Your task to perform on an android device: Search for hotels in Las Vegas Image 0: 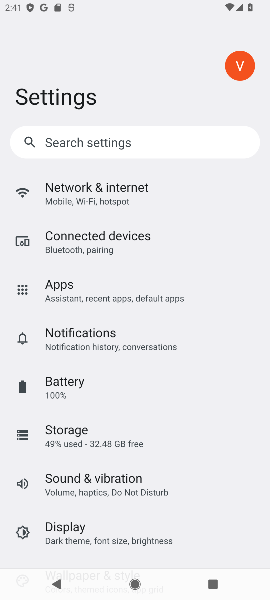
Step 0: press home button
Your task to perform on an android device: Search for hotels in Las Vegas Image 1: 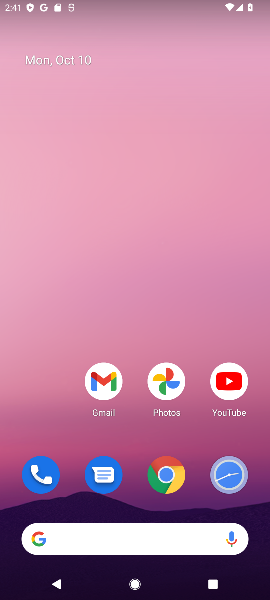
Step 1: drag from (107, 465) to (157, 179)
Your task to perform on an android device: Search for hotels in Las Vegas Image 2: 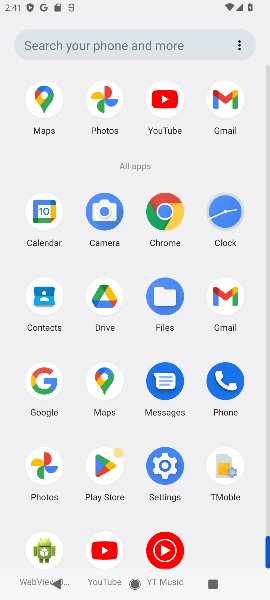
Step 2: click (43, 399)
Your task to perform on an android device: Search for hotels in Las Vegas Image 3: 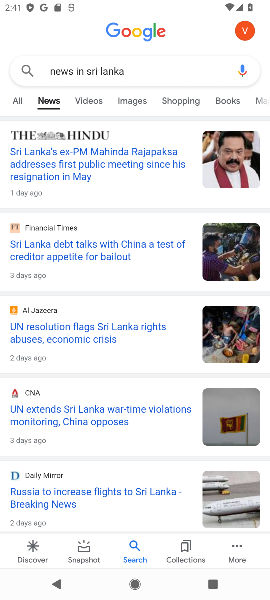
Step 3: click (195, 70)
Your task to perform on an android device: Search for hotels in Las Vegas Image 4: 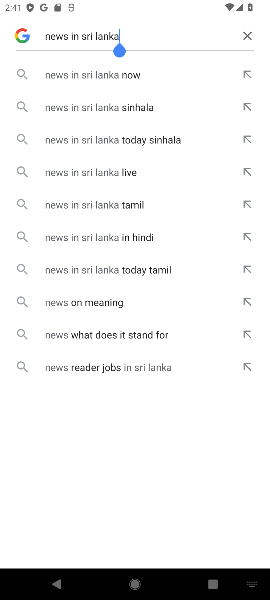
Step 4: click (251, 36)
Your task to perform on an android device: Search for hotels in Las Vegas Image 5: 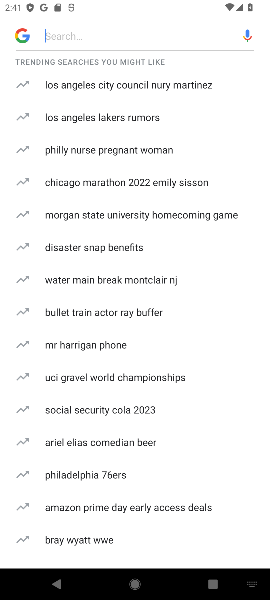
Step 5: type "hotels in Las Vegas"
Your task to perform on an android device: Search for hotels in Las Vegas Image 6: 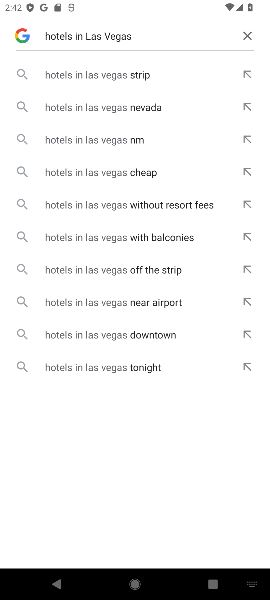
Step 6: click (154, 61)
Your task to perform on an android device: Search for hotels in Las Vegas Image 7: 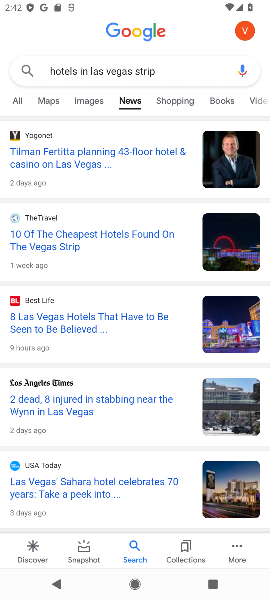
Step 7: click (23, 114)
Your task to perform on an android device: Search for hotels in Las Vegas Image 8: 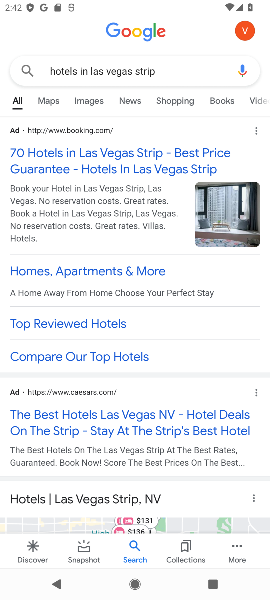
Step 8: task complete